Your task to perform on an android device: Open the calendar and show me this week's events? Image 0: 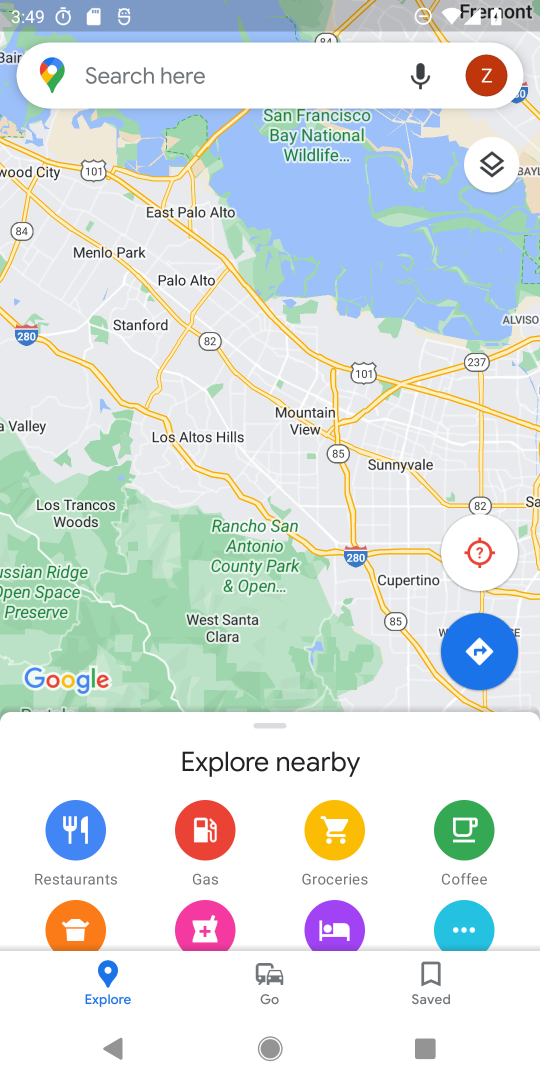
Step 0: press home button
Your task to perform on an android device: Open the calendar and show me this week's events? Image 1: 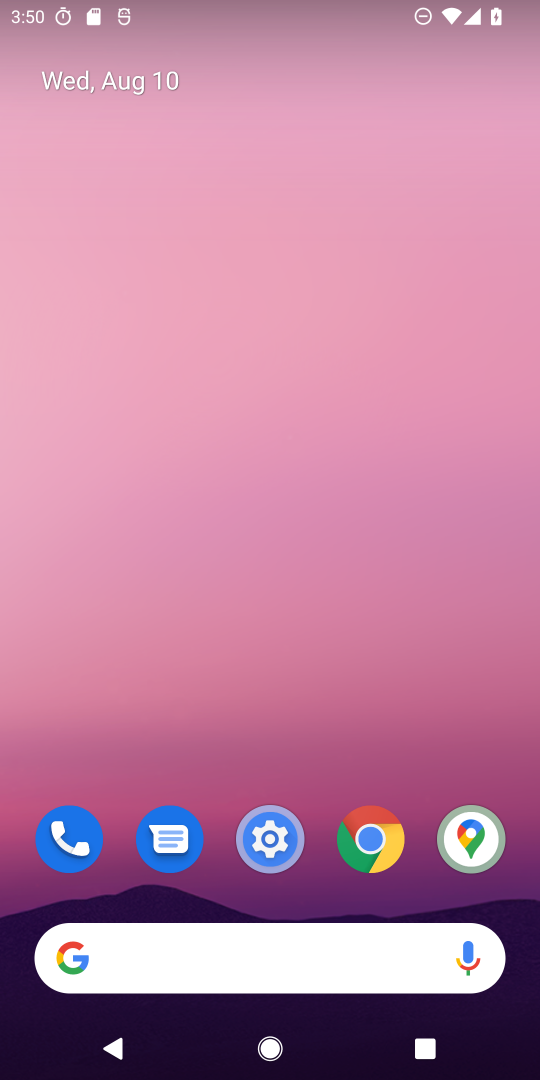
Step 1: drag from (36, 1038) to (170, 62)
Your task to perform on an android device: Open the calendar and show me this week's events? Image 2: 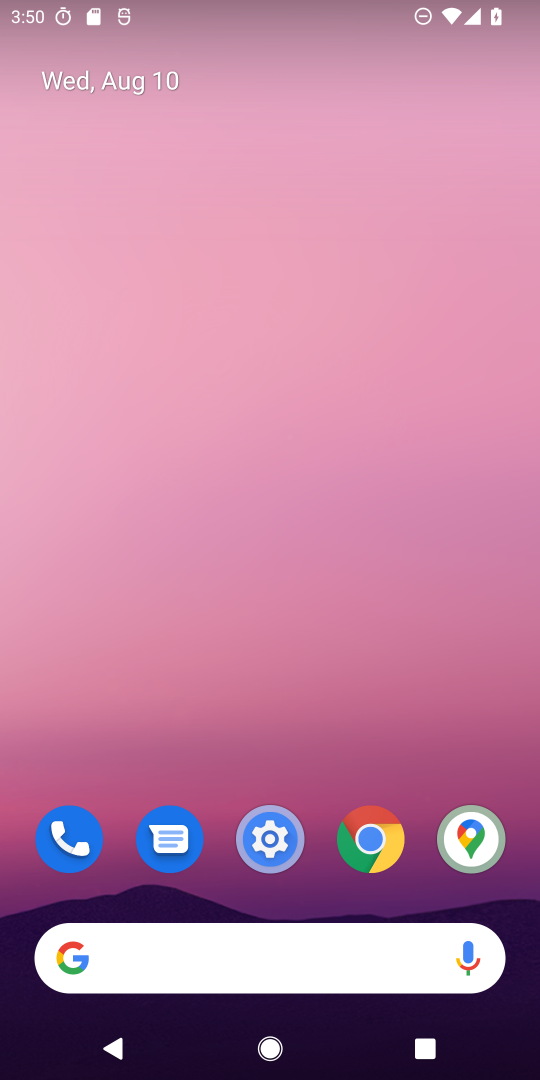
Step 2: drag from (53, 1049) to (349, 245)
Your task to perform on an android device: Open the calendar and show me this week's events? Image 3: 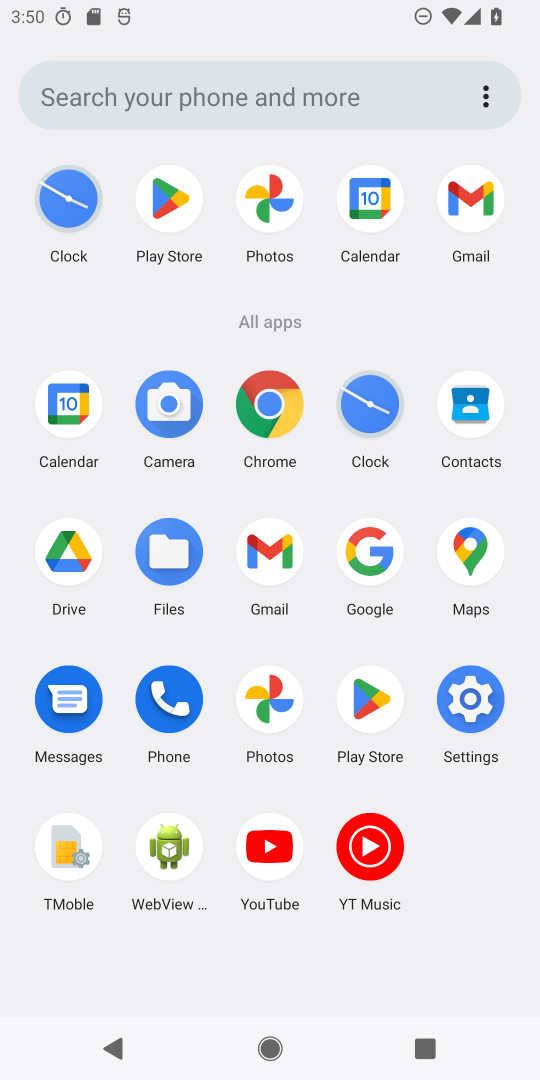
Step 3: click (60, 406)
Your task to perform on an android device: Open the calendar and show me this week's events? Image 4: 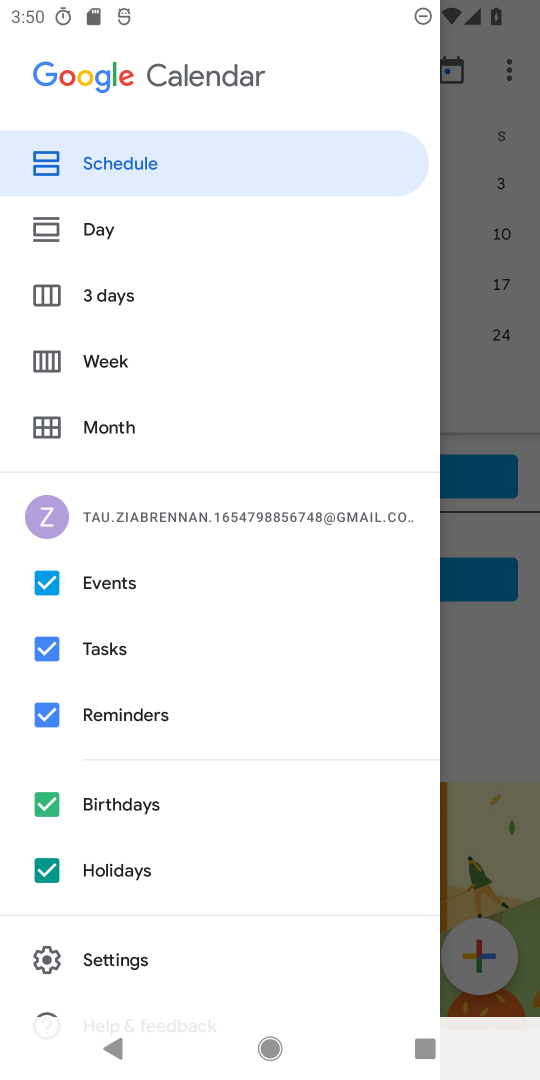
Step 4: click (469, 632)
Your task to perform on an android device: Open the calendar and show me this week's events? Image 5: 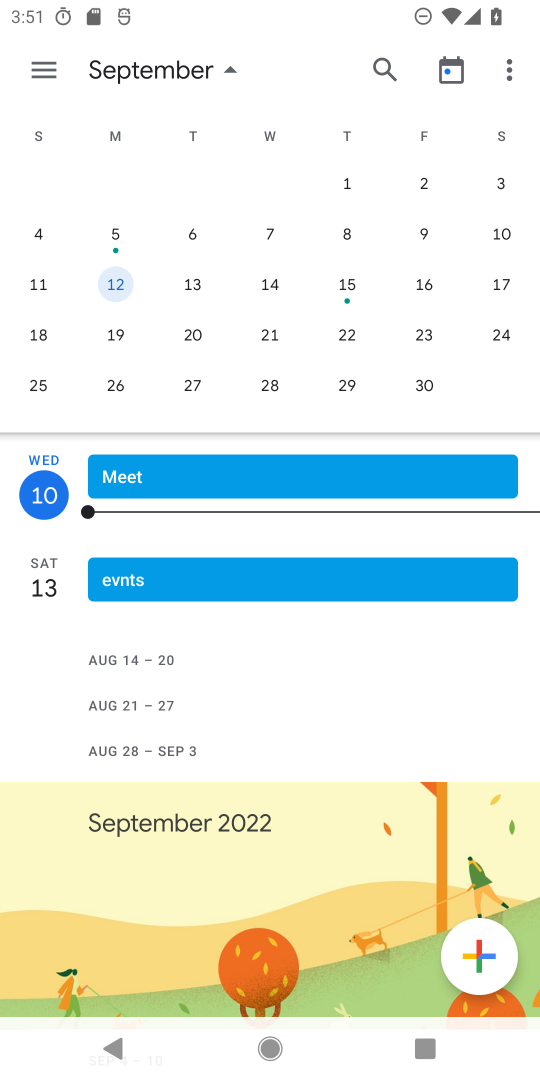
Step 5: task complete